Your task to perform on an android device: Open CNN.com Image 0: 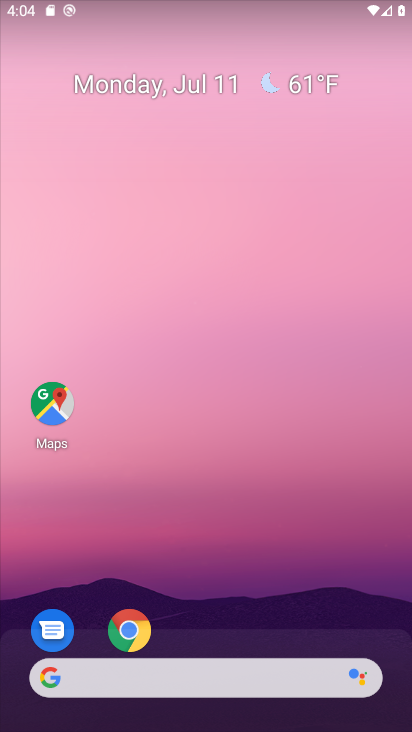
Step 0: drag from (325, 576) to (348, 125)
Your task to perform on an android device: Open CNN.com Image 1: 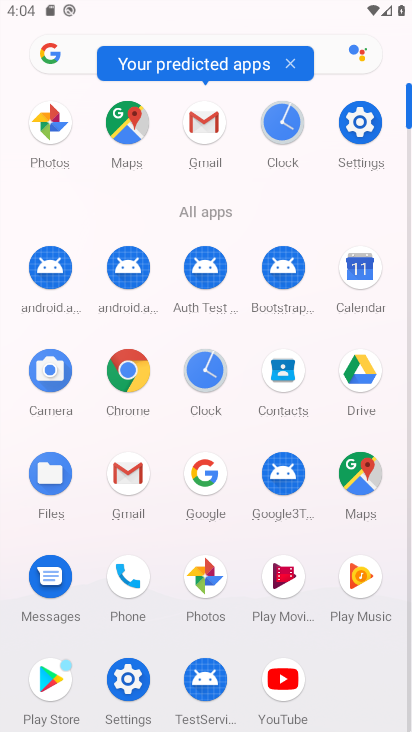
Step 1: click (134, 367)
Your task to perform on an android device: Open CNN.com Image 2: 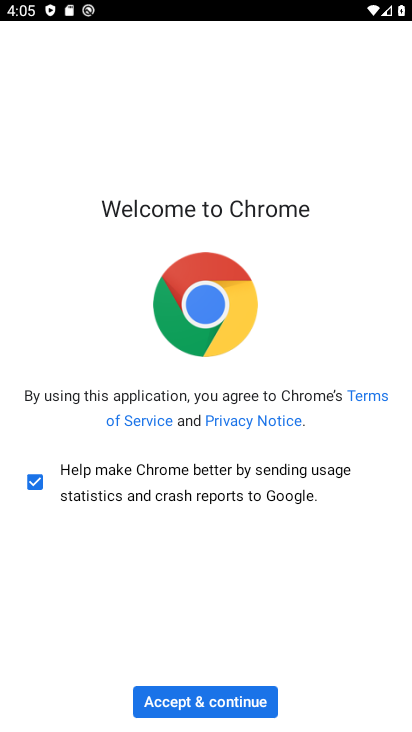
Step 2: click (193, 705)
Your task to perform on an android device: Open CNN.com Image 3: 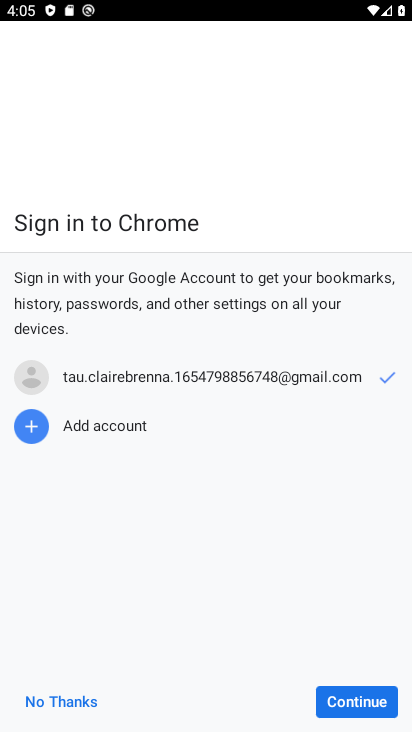
Step 3: click (88, 699)
Your task to perform on an android device: Open CNN.com Image 4: 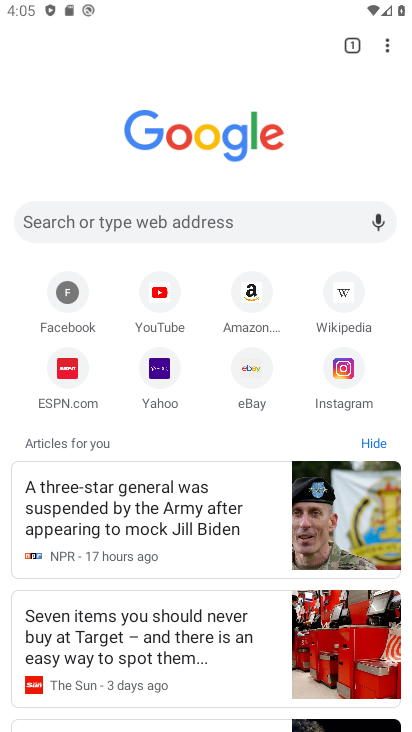
Step 4: click (211, 220)
Your task to perform on an android device: Open CNN.com Image 5: 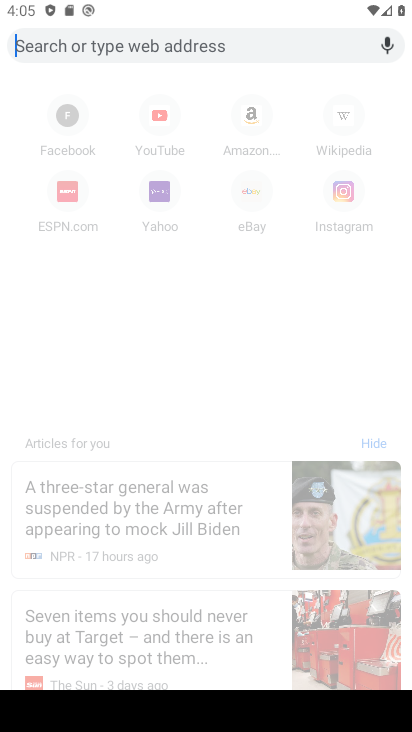
Step 5: type "cnn"
Your task to perform on an android device: Open CNN.com Image 6: 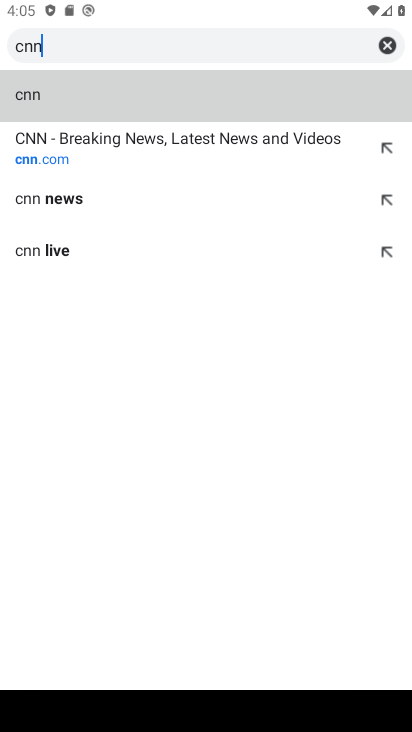
Step 6: press enter
Your task to perform on an android device: Open CNN.com Image 7: 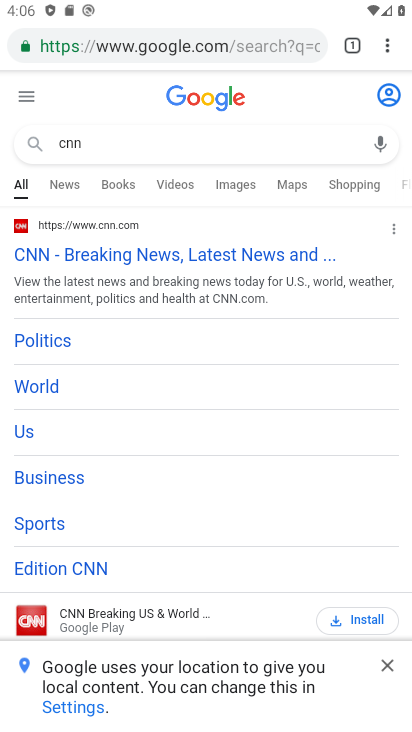
Step 7: click (91, 268)
Your task to perform on an android device: Open CNN.com Image 8: 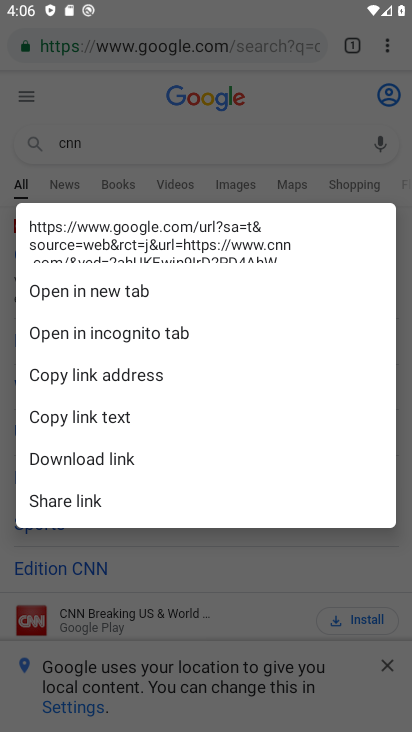
Step 8: click (100, 291)
Your task to perform on an android device: Open CNN.com Image 9: 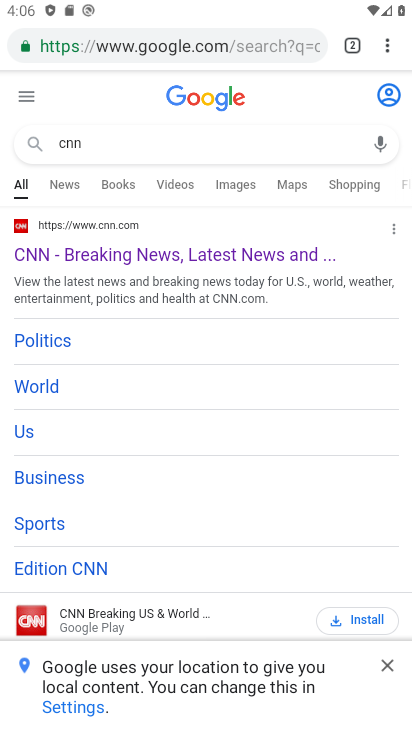
Step 9: task complete